Your task to perform on an android device: open wifi settings Image 0: 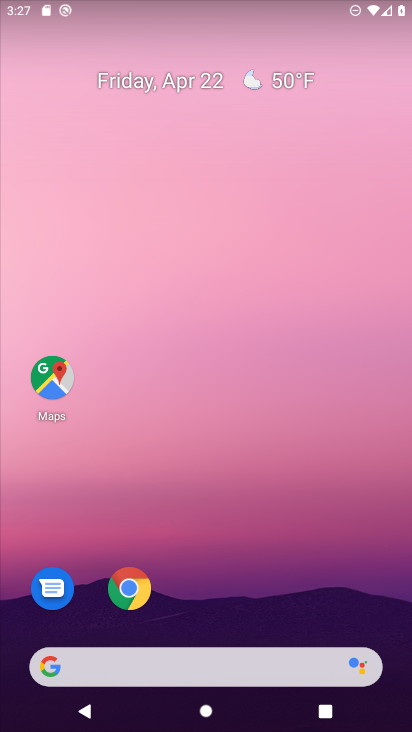
Step 0: drag from (219, 539) to (225, 127)
Your task to perform on an android device: open wifi settings Image 1: 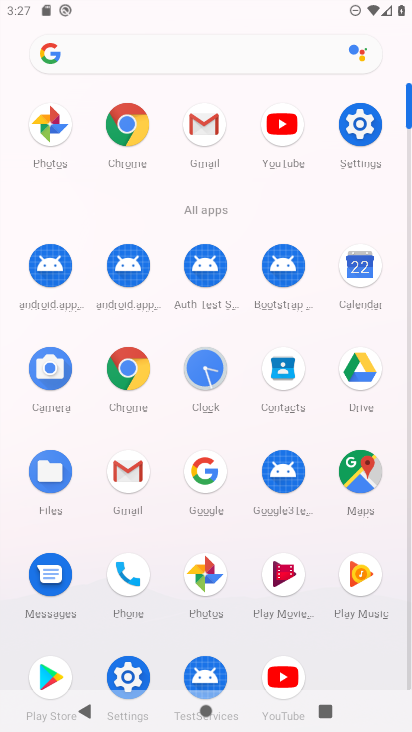
Step 1: click (356, 130)
Your task to perform on an android device: open wifi settings Image 2: 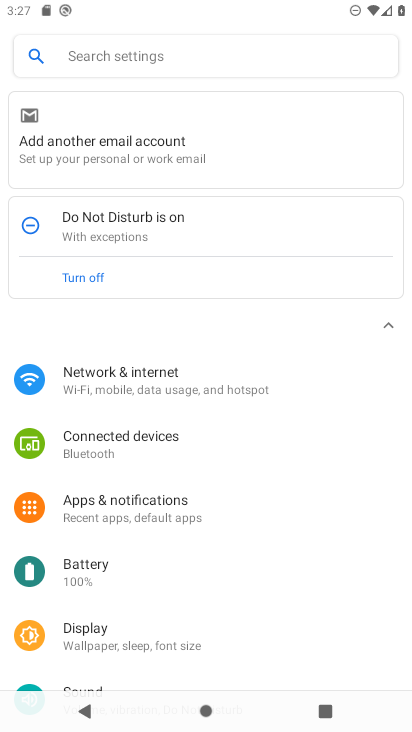
Step 2: click (157, 391)
Your task to perform on an android device: open wifi settings Image 3: 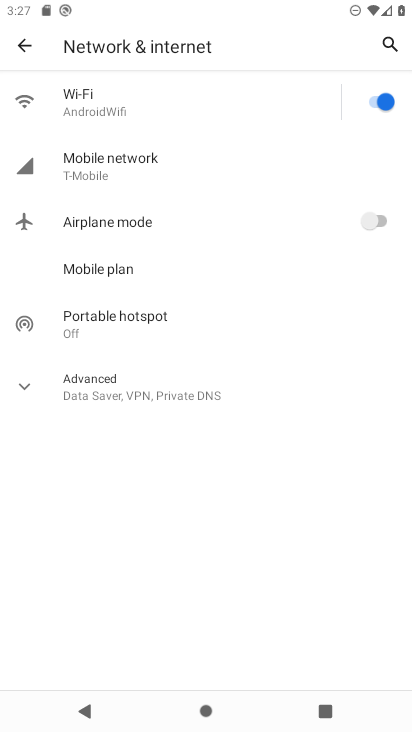
Step 3: click (197, 113)
Your task to perform on an android device: open wifi settings Image 4: 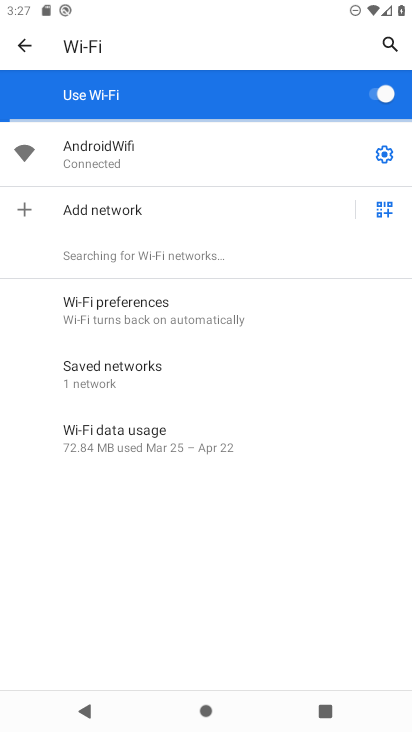
Step 4: task complete